Your task to perform on an android device: open app "Speedtest by Ookla" Image 0: 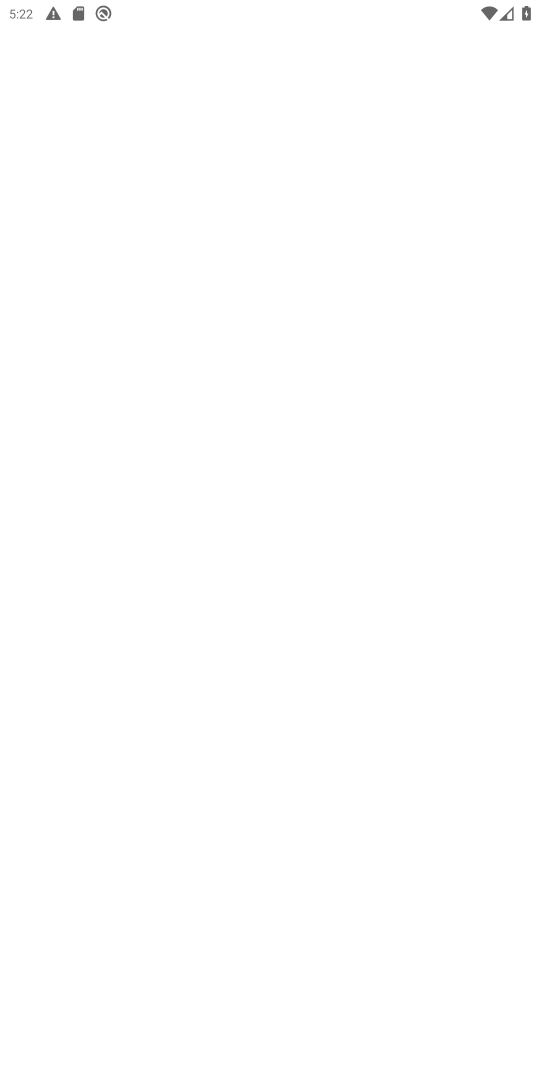
Step 0: press home button
Your task to perform on an android device: open app "Speedtest by Ookla" Image 1: 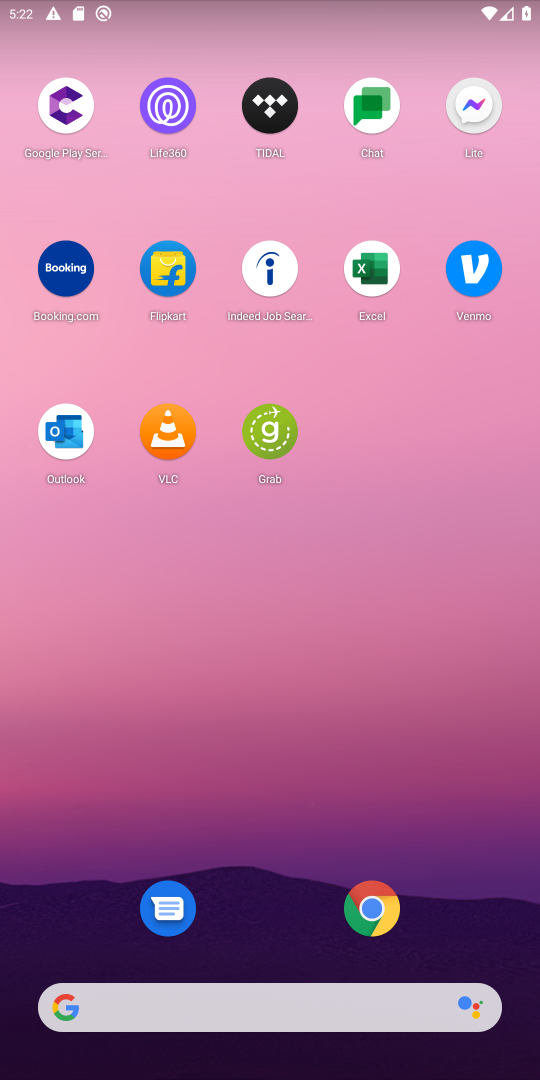
Step 1: drag from (264, 744) to (278, 114)
Your task to perform on an android device: open app "Speedtest by Ookla" Image 2: 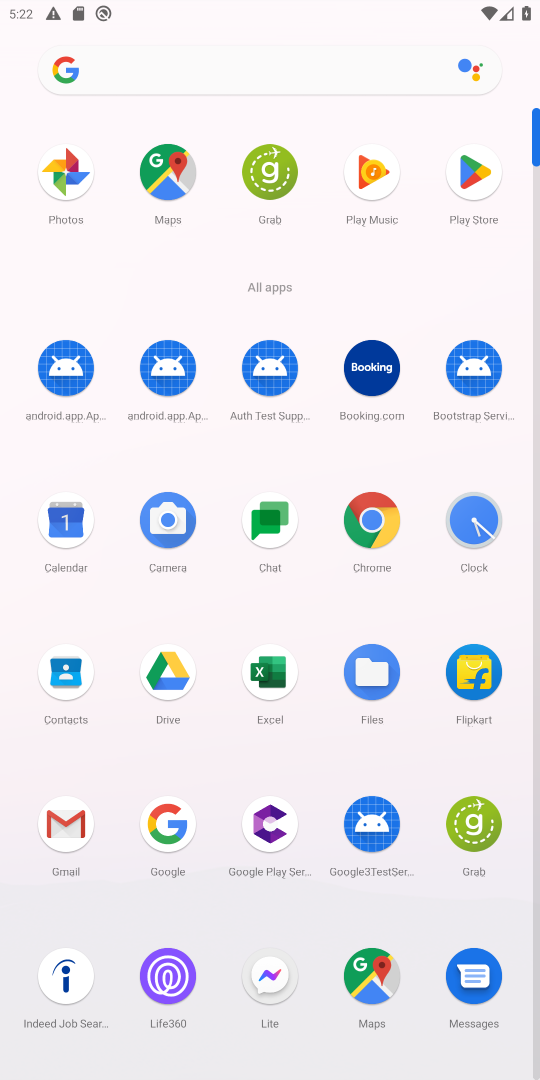
Step 2: click (483, 160)
Your task to perform on an android device: open app "Speedtest by Ookla" Image 3: 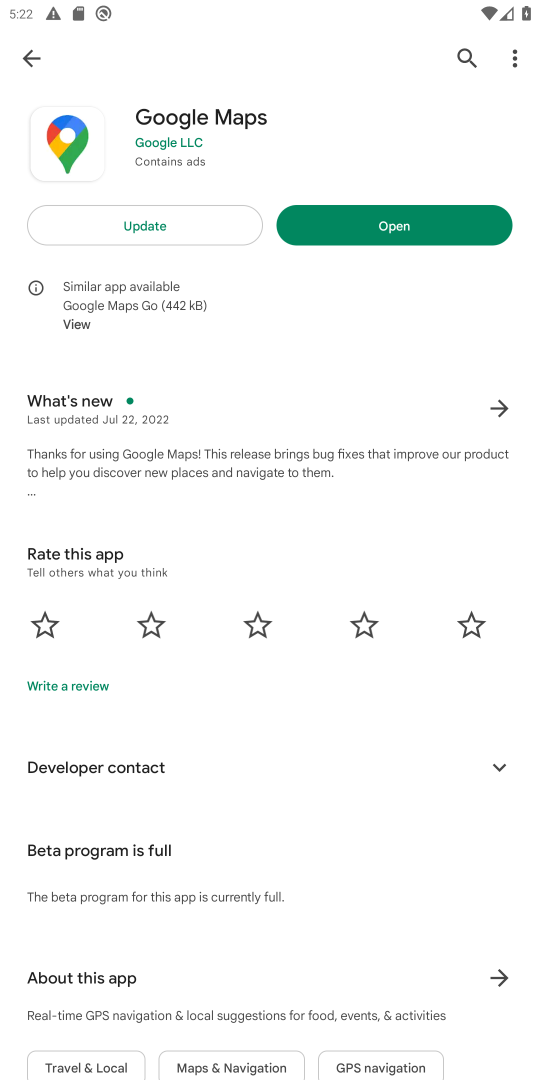
Step 3: click (29, 53)
Your task to perform on an android device: open app "Speedtest by Ookla" Image 4: 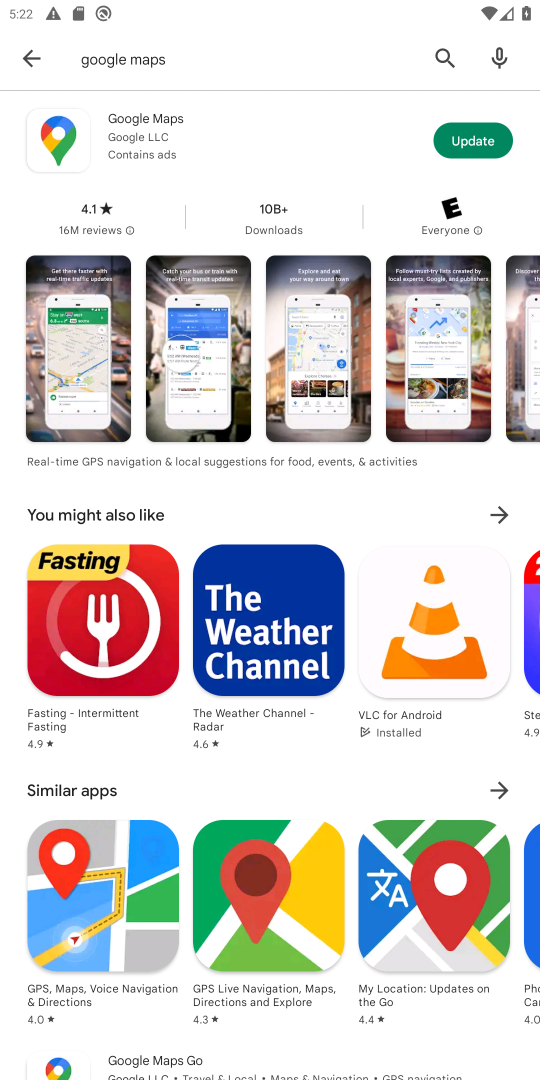
Step 4: click (31, 44)
Your task to perform on an android device: open app "Speedtest by Ookla" Image 5: 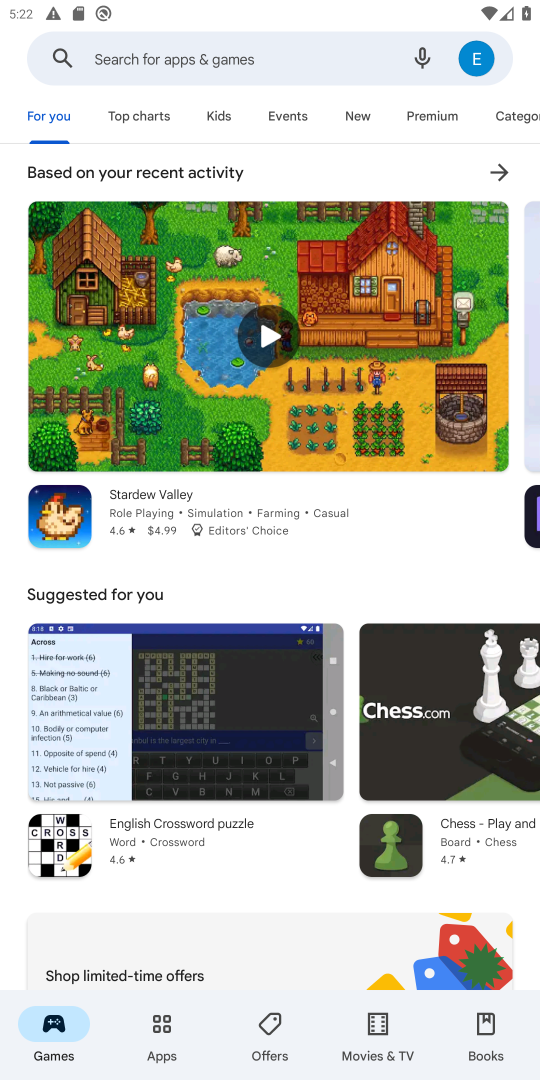
Step 5: click (172, 51)
Your task to perform on an android device: open app "Speedtest by Ookla" Image 6: 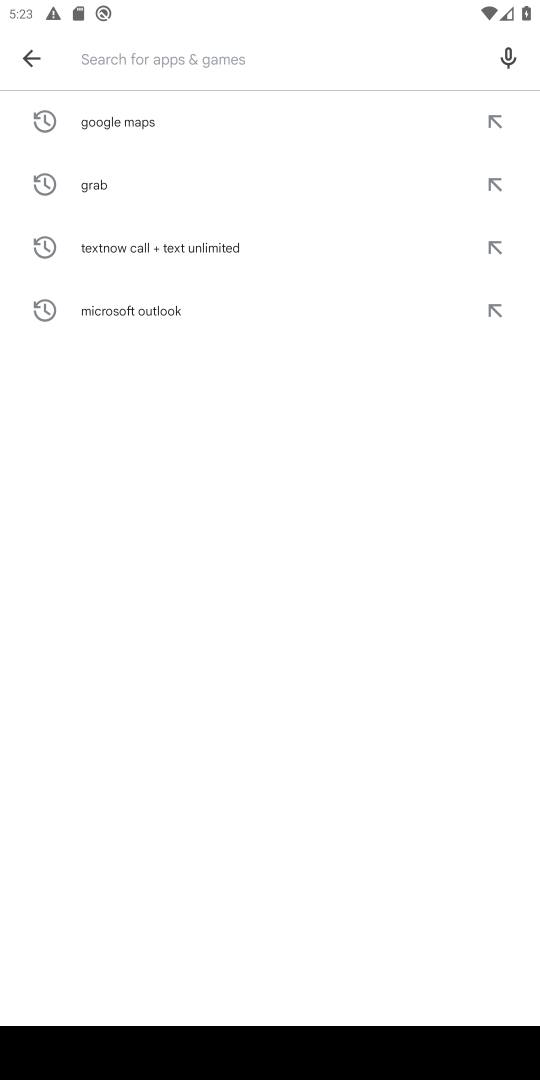
Step 6: type "Speedtest by Ookla"
Your task to perform on an android device: open app "Speedtest by Ookla" Image 7: 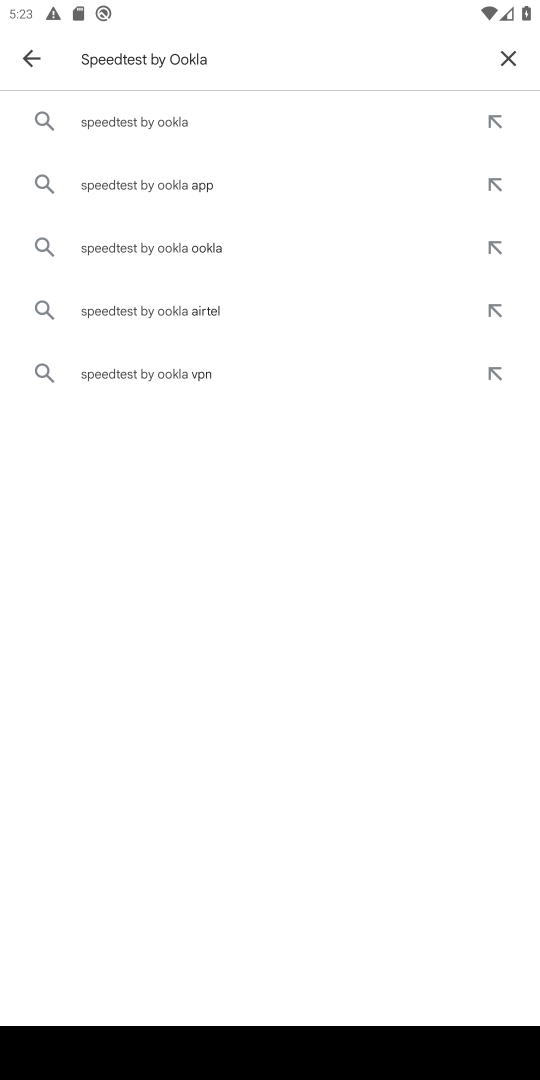
Step 7: click (127, 126)
Your task to perform on an android device: open app "Speedtest by Ookla" Image 8: 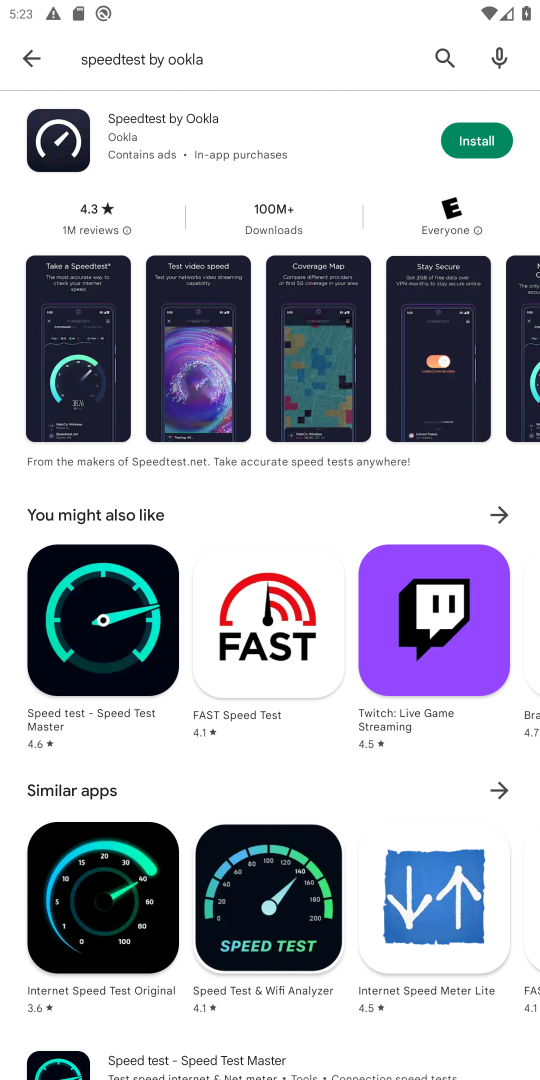
Step 8: click (479, 148)
Your task to perform on an android device: open app "Speedtest by Ookla" Image 9: 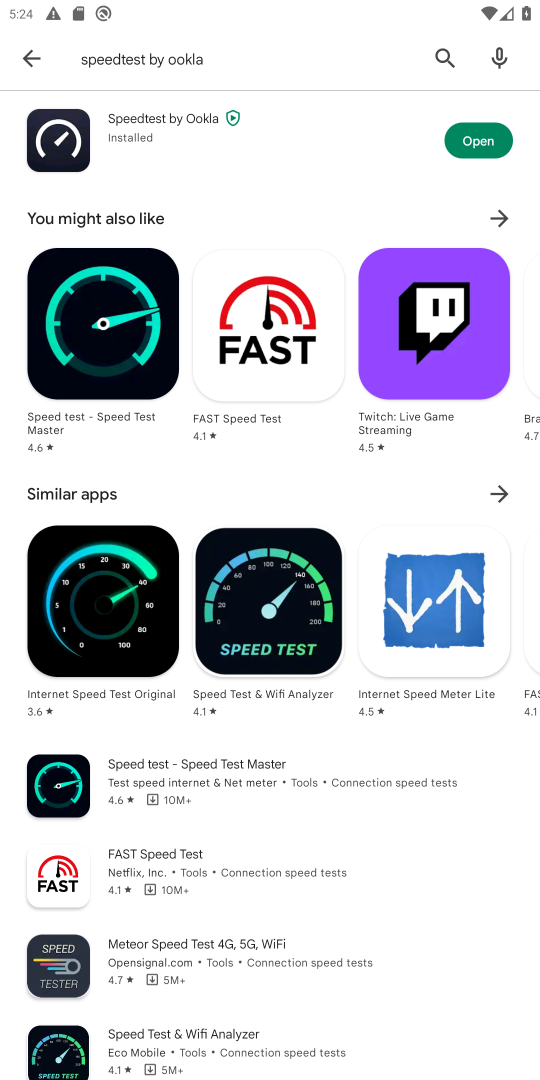
Step 9: click (476, 150)
Your task to perform on an android device: open app "Speedtest by Ookla" Image 10: 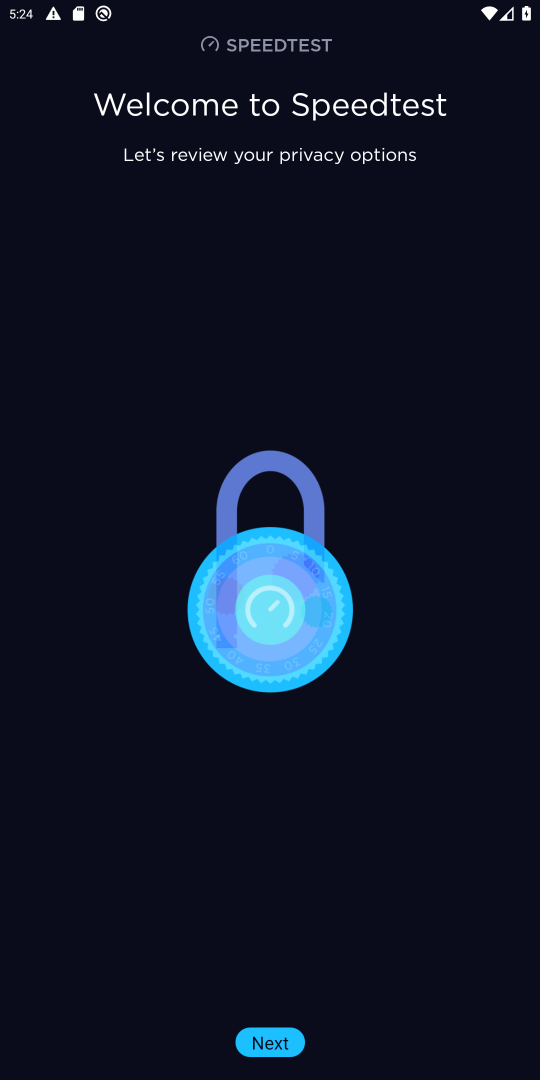
Step 10: task complete